Your task to perform on an android device: Go to Google maps Image 0: 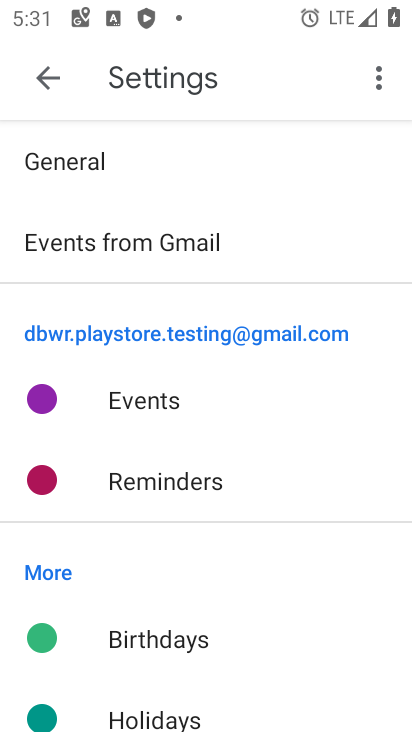
Step 0: press home button
Your task to perform on an android device: Go to Google maps Image 1: 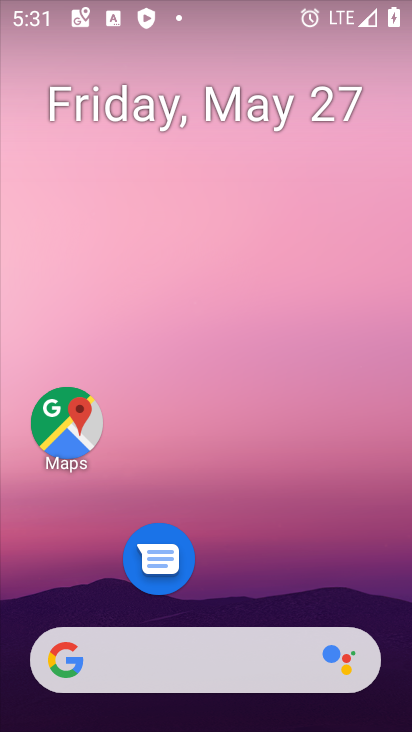
Step 1: drag from (290, 645) to (266, 32)
Your task to perform on an android device: Go to Google maps Image 2: 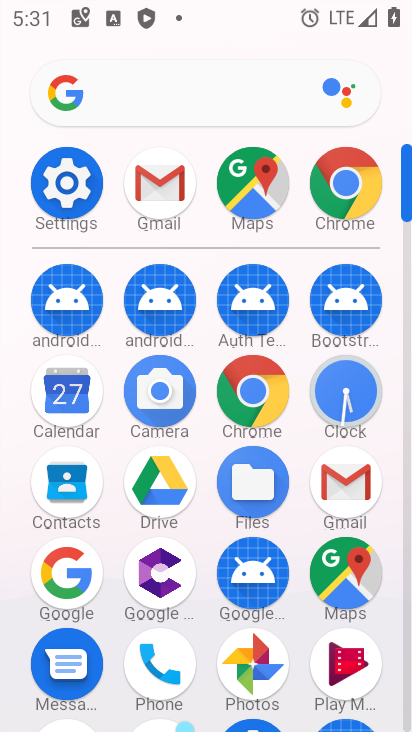
Step 2: click (354, 570)
Your task to perform on an android device: Go to Google maps Image 3: 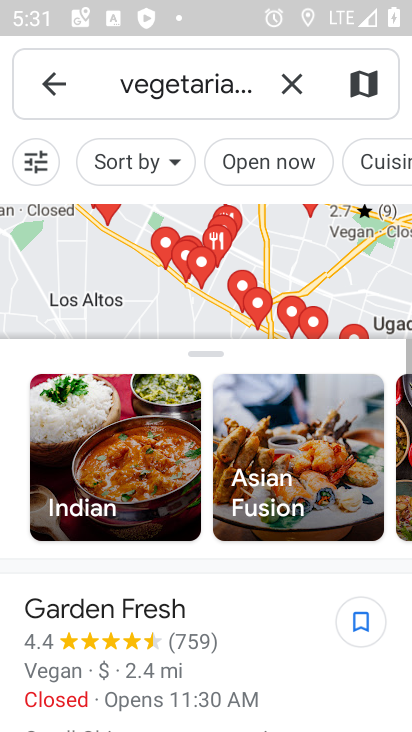
Step 3: task complete